Your task to perform on an android device: turn on location history Image 0: 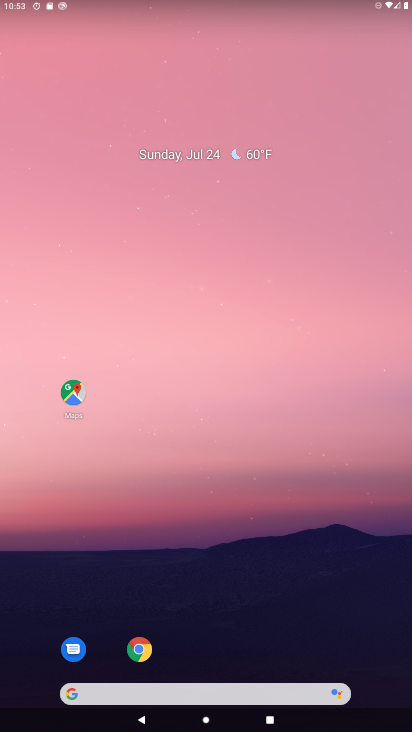
Step 0: drag from (270, 197) to (342, 33)
Your task to perform on an android device: turn on location history Image 1: 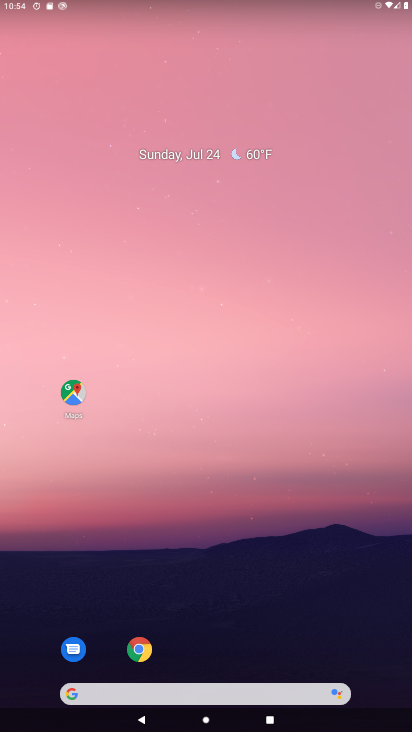
Step 1: drag from (290, 608) to (255, 69)
Your task to perform on an android device: turn on location history Image 2: 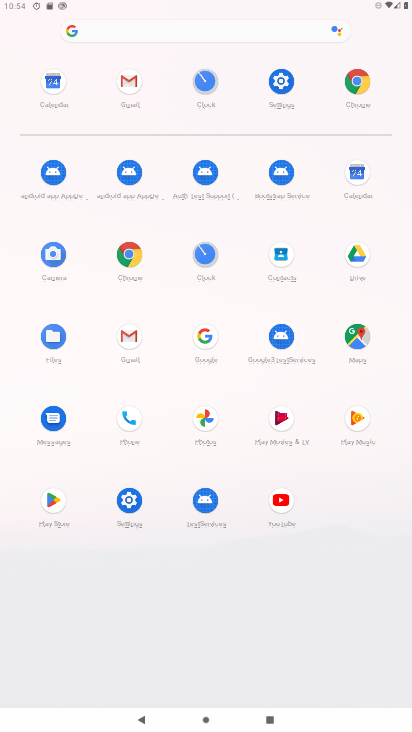
Step 2: click (284, 87)
Your task to perform on an android device: turn on location history Image 3: 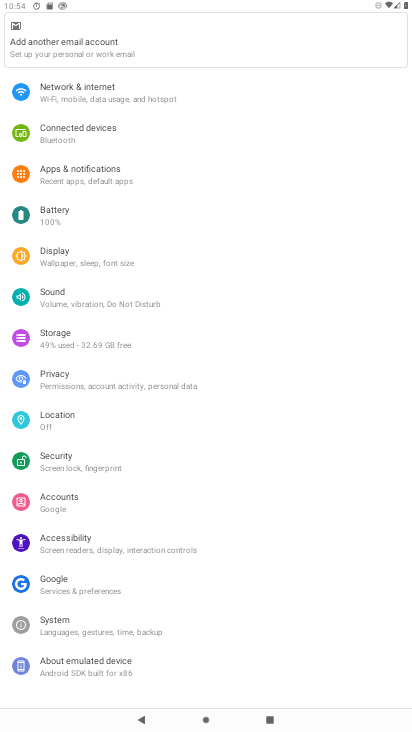
Step 3: click (58, 431)
Your task to perform on an android device: turn on location history Image 4: 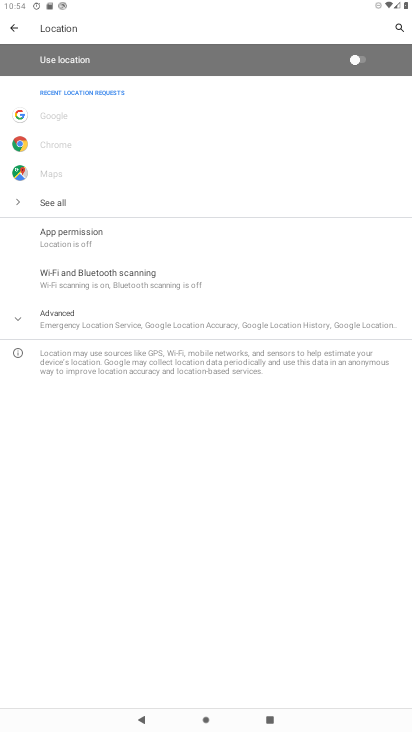
Step 4: click (119, 331)
Your task to perform on an android device: turn on location history Image 5: 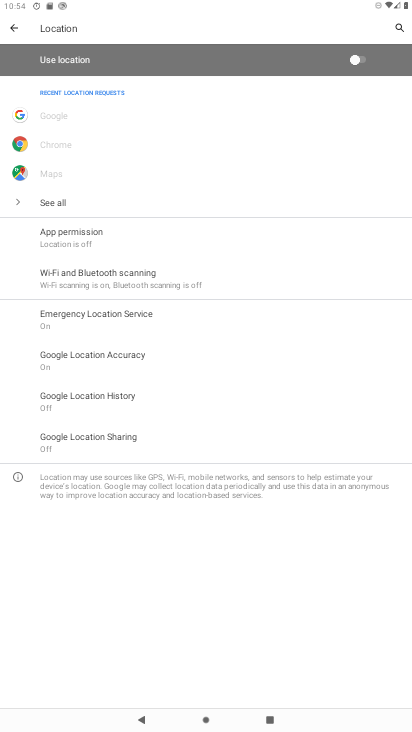
Step 5: click (123, 396)
Your task to perform on an android device: turn on location history Image 6: 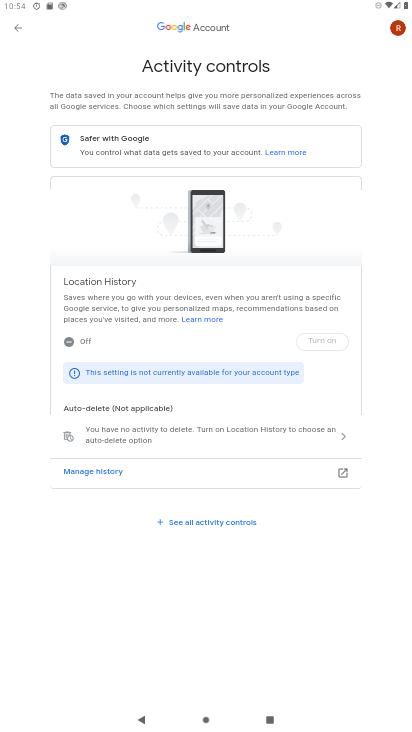
Step 6: task complete